Your task to perform on an android device: remove spam from my inbox in the gmail app Image 0: 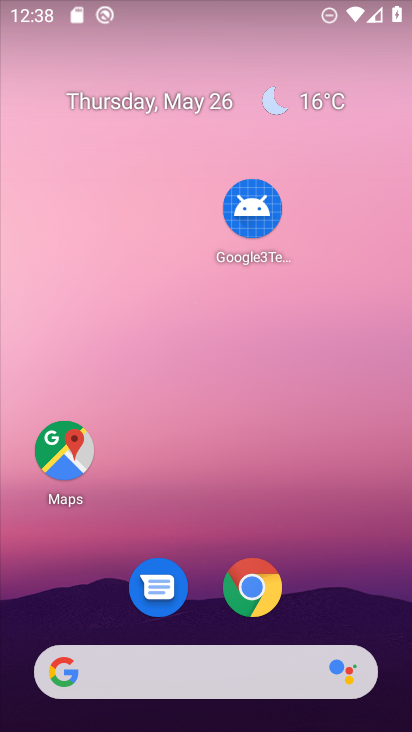
Step 0: drag from (203, 675) to (173, 227)
Your task to perform on an android device: remove spam from my inbox in the gmail app Image 1: 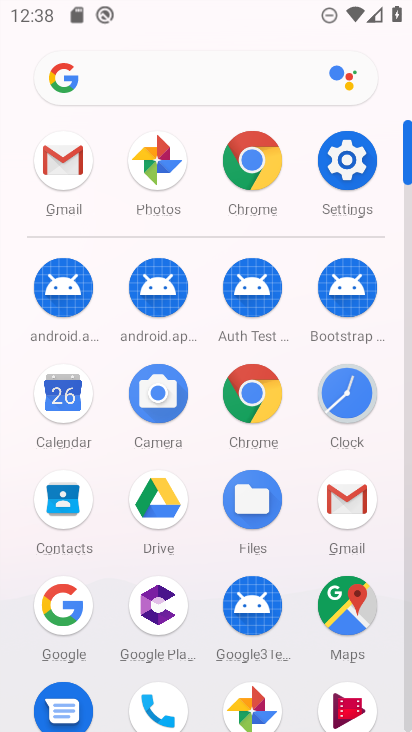
Step 1: click (328, 529)
Your task to perform on an android device: remove spam from my inbox in the gmail app Image 2: 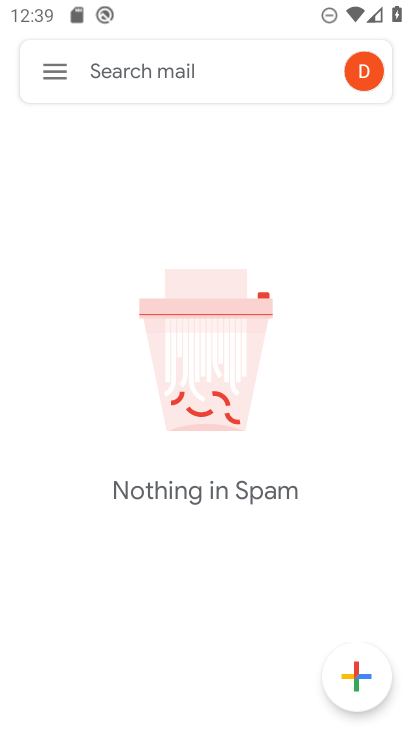
Step 2: click (55, 85)
Your task to perform on an android device: remove spam from my inbox in the gmail app Image 3: 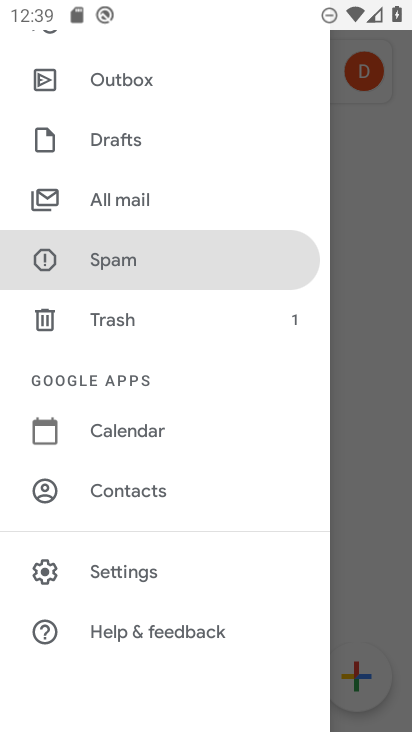
Step 3: click (103, 255)
Your task to perform on an android device: remove spam from my inbox in the gmail app Image 4: 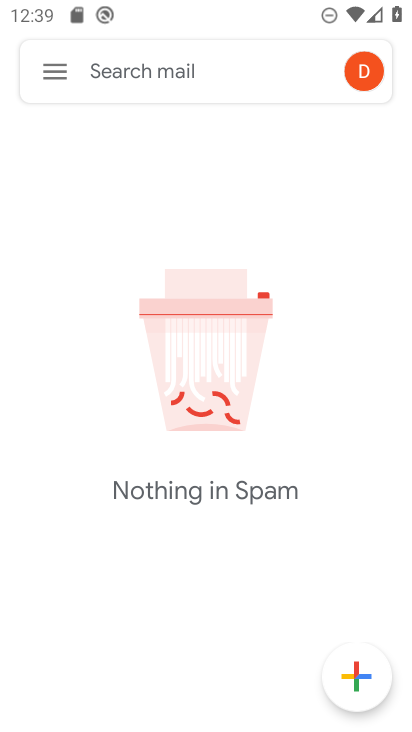
Step 4: task complete